Your task to perform on an android device: stop showing notifications on the lock screen Image 0: 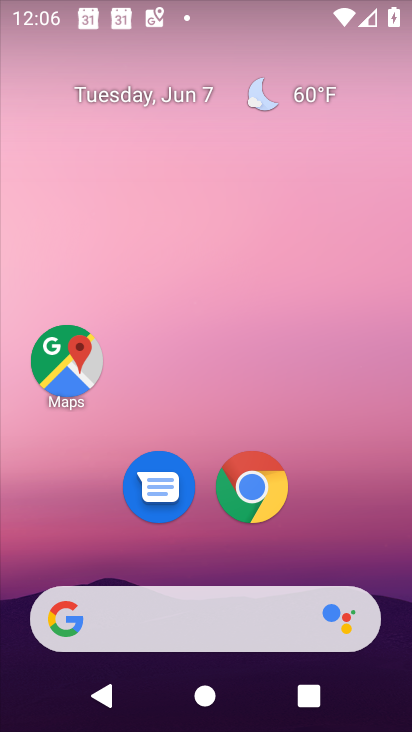
Step 0: drag from (394, 565) to (284, 130)
Your task to perform on an android device: stop showing notifications on the lock screen Image 1: 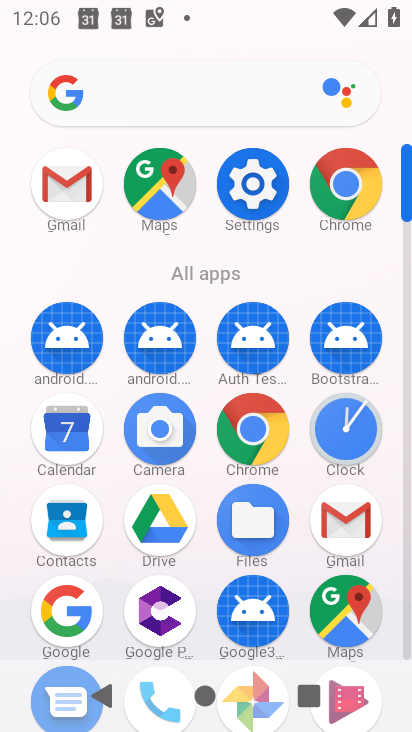
Step 1: click (263, 191)
Your task to perform on an android device: stop showing notifications on the lock screen Image 2: 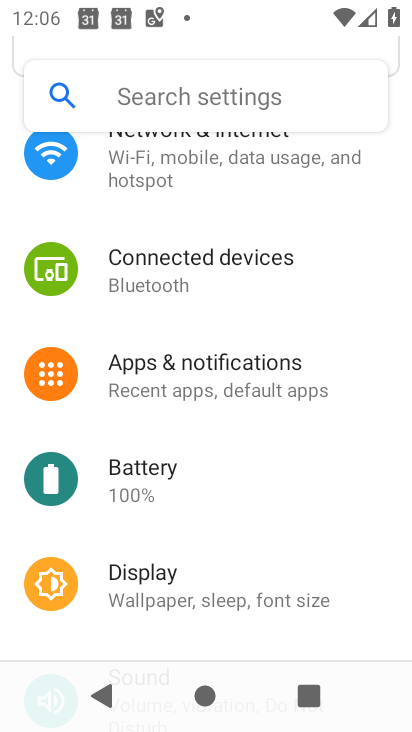
Step 2: drag from (241, 528) to (180, 49)
Your task to perform on an android device: stop showing notifications on the lock screen Image 3: 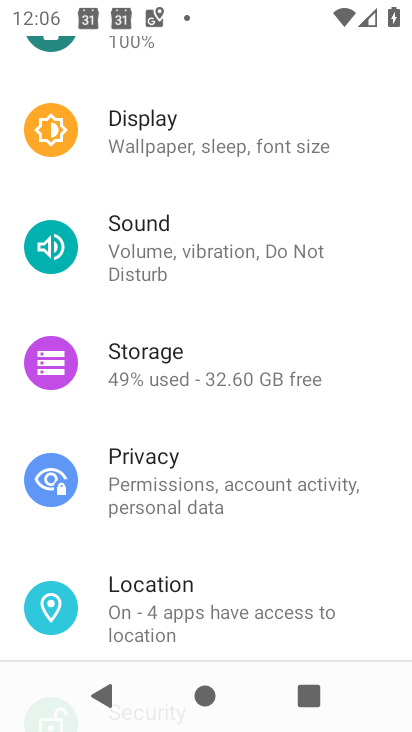
Step 3: drag from (190, 203) to (208, 544)
Your task to perform on an android device: stop showing notifications on the lock screen Image 4: 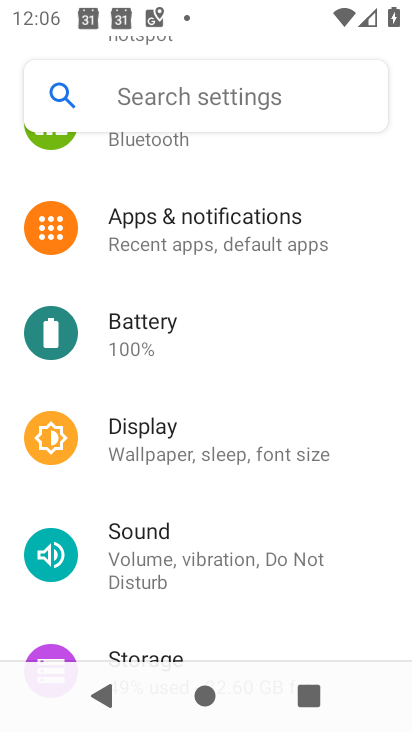
Step 4: click (192, 261)
Your task to perform on an android device: stop showing notifications on the lock screen Image 5: 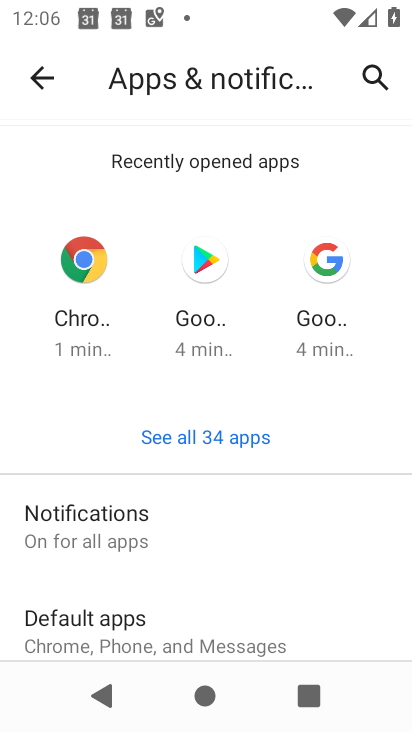
Step 5: drag from (230, 534) to (209, 345)
Your task to perform on an android device: stop showing notifications on the lock screen Image 6: 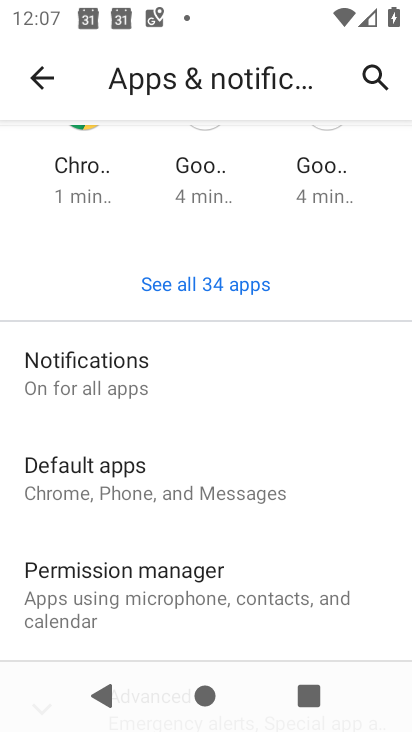
Step 6: click (207, 386)
Your task to perform on an android device: stop showing notifications on the lock screen Image 7: 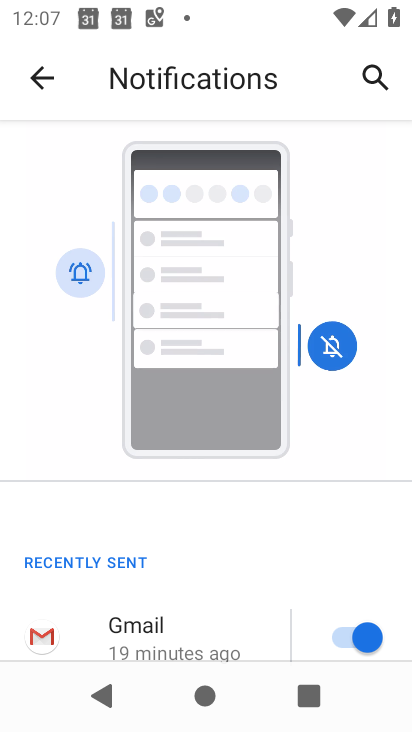
Step 7: drag from (220, 550) to (196, 63)
Your task to perform on an android device: stop showing notifications on the lock screen Image 8: 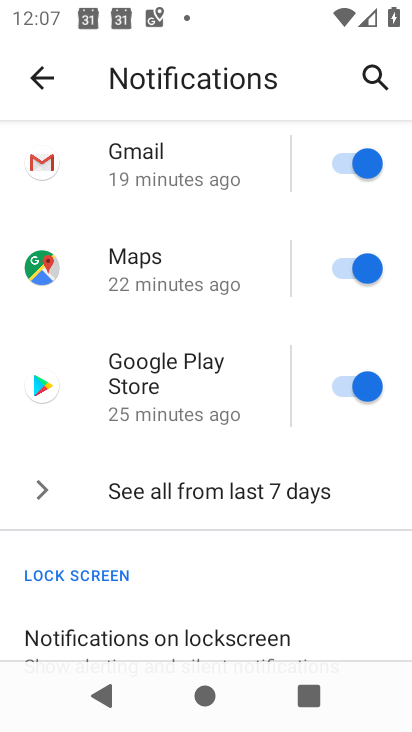
Step 8: drag from (211, 594) to (207, 366)
Your task to perform on an android device: stop showing notifications on the lock screen Image 9: 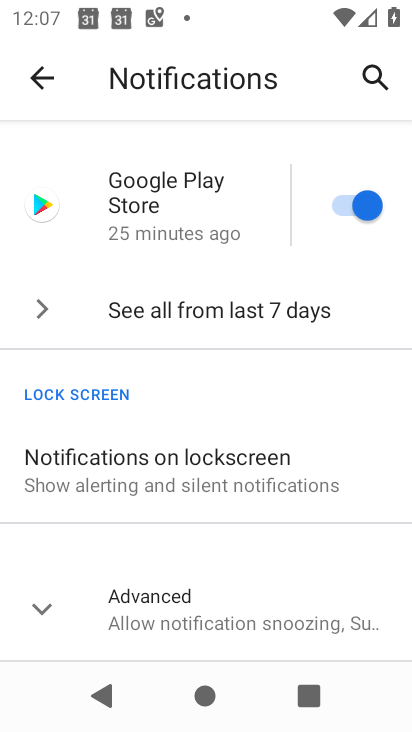
Step 9: click (214, 464)
Your task to perform on an android device: stop showing notifications on the lock screen Image 10: 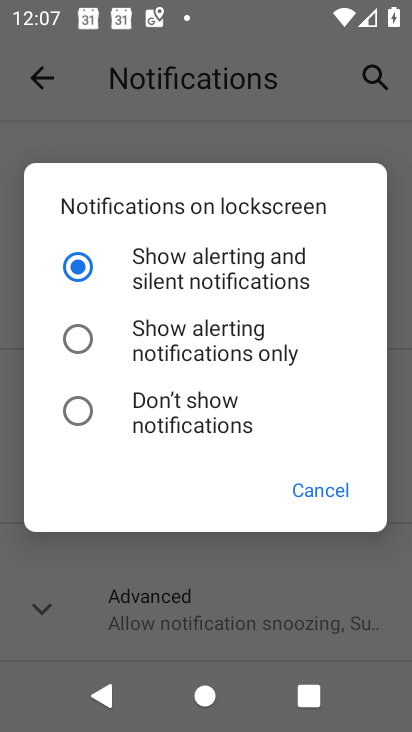
Step 10: click (203, 432)
Your task to perform on an android device: stop showing notifications on the lock screen Image 11: 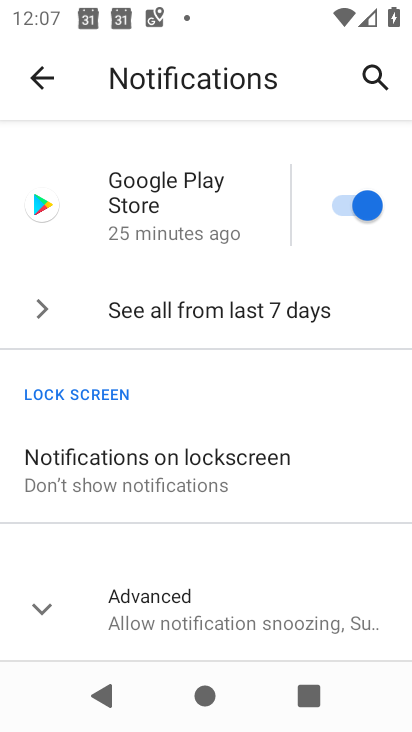
Step 11: task complete